Your task to perform on an android device: toggle javascript in the chrome app Image 0: 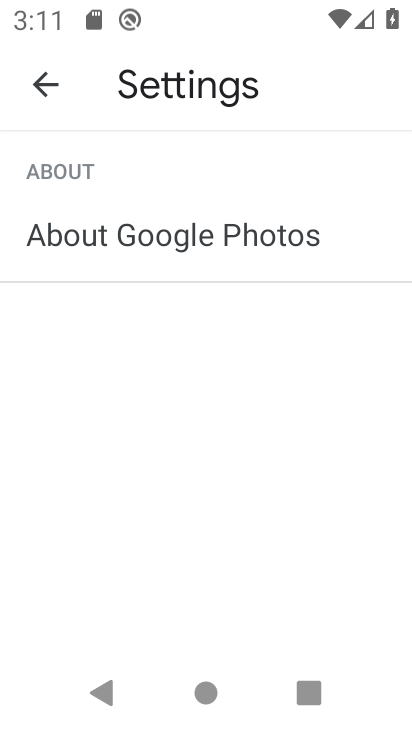
Step 0: press home button
Your task to perform on an android device: toggle javascript in the chrome app Image 1: 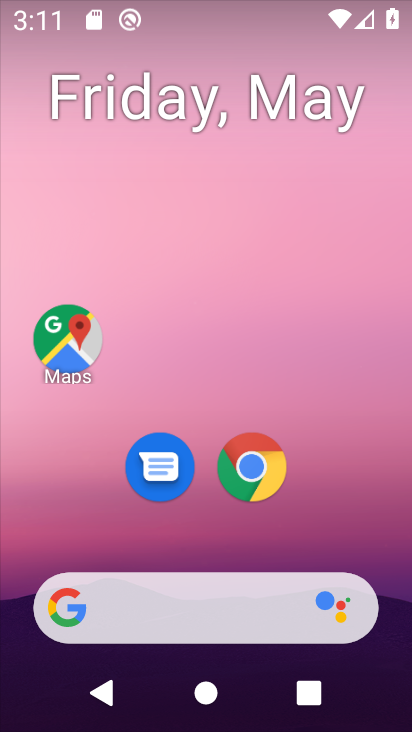
Step 1: click (264, 466)
Your task to perform on an android device: toggle javascript in the chrome app Image 2: 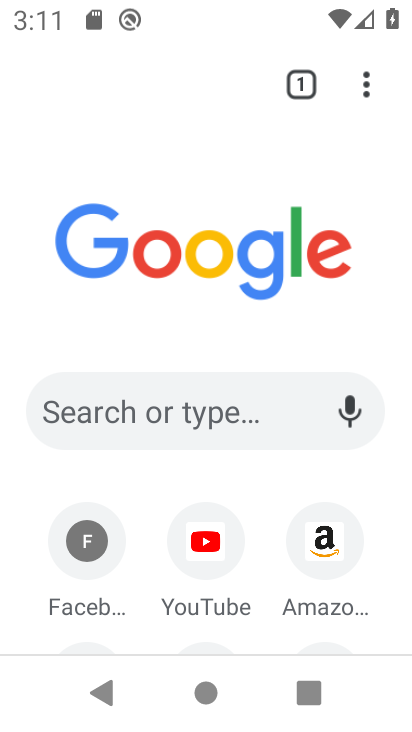
Step 2: click (364, 85)
Your task to perform on an android device: toggle javascript in the chrome app Image 3: 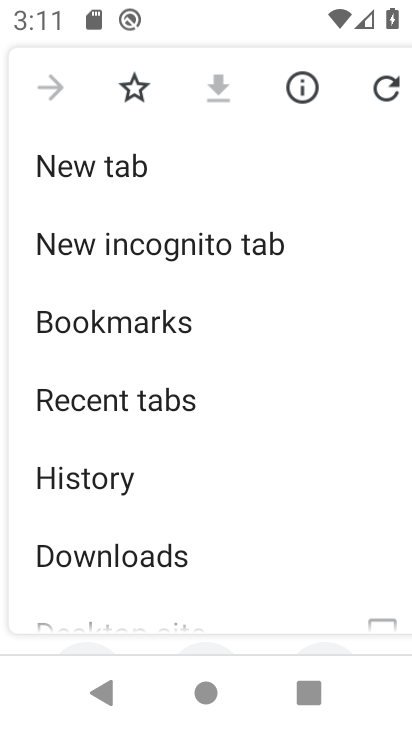
Step 3: drag from (218, 507) to (175, 133)
Your task to perform on an android device: toggle javascript in the chrome app Image 4: 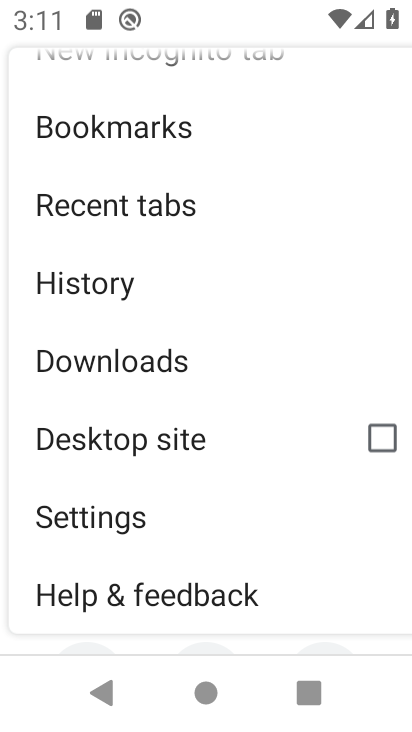
Step 4: click (141, 505)
Your task to perform on an android device: toggle javascript in the chrome app Image 5: 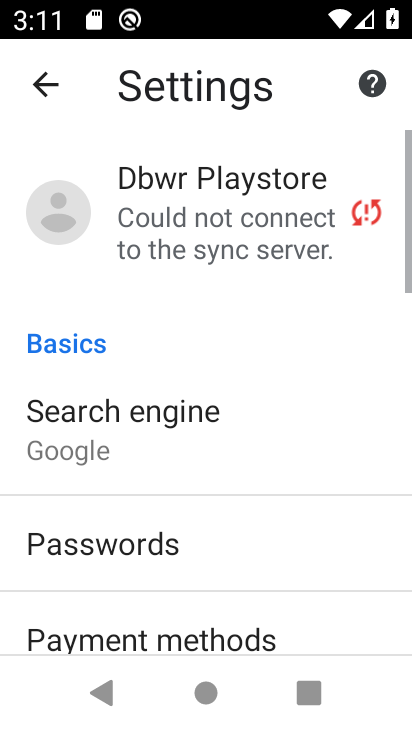
Step 5: drag from (233, 515) to (189, 189)
Your task to perform on an android device: toggle javascript in the chrome app Image 6: 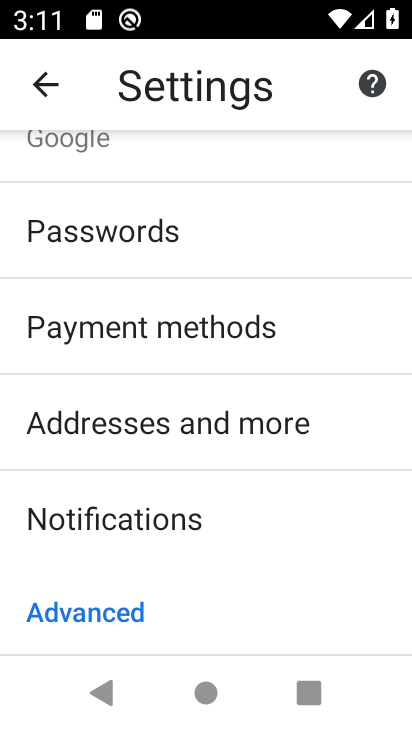
Step 6: drag from (214, 570) to (197, 271)
Your task to perform on an android device: toggle javascript in the chrome app Image 7: 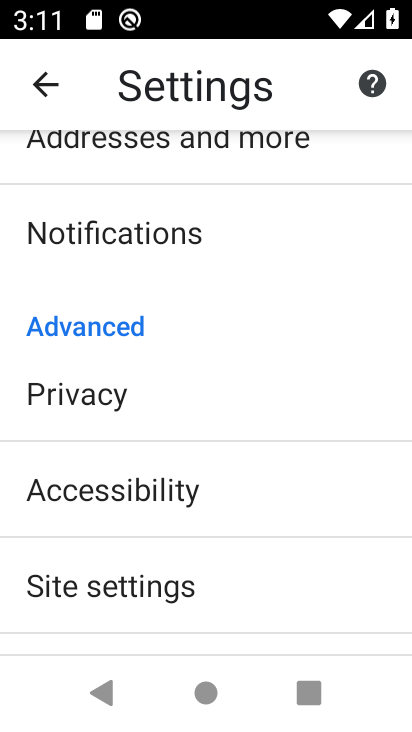
Step 7: drag from (201, 543) to (176, 196)
Your task to perform on an android device: toggle javascript in the chrome app Image 8: 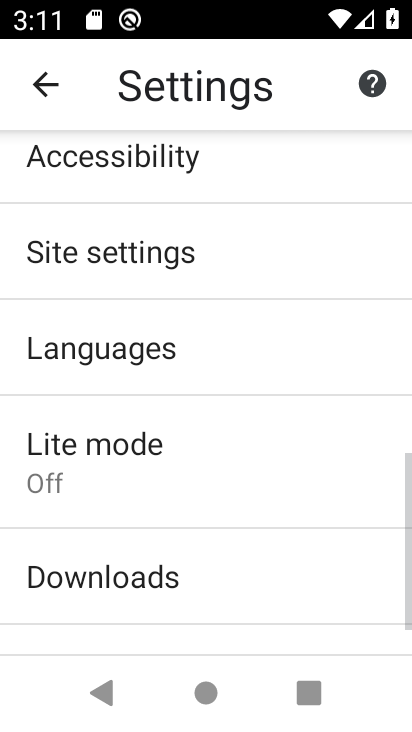
Step 8: drag from (232, 503) to (167, 146)
Your task to perform on an android device: toggle javascript in the chrome app Image 9: 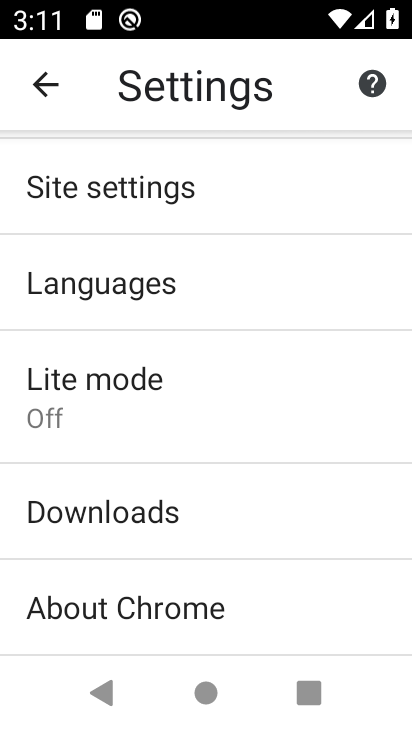
Step 9: click (185, 199)
Your task to perform on an android device: toggle javascript in the chrome app Image 10: 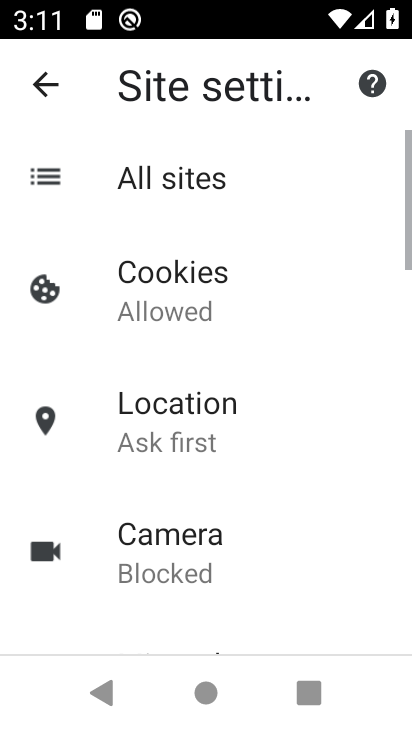
Step 10: drag from (247, 555) to (188, 140)
Your task to perform on an android device: toggle javascript in the chrome app Image 11: 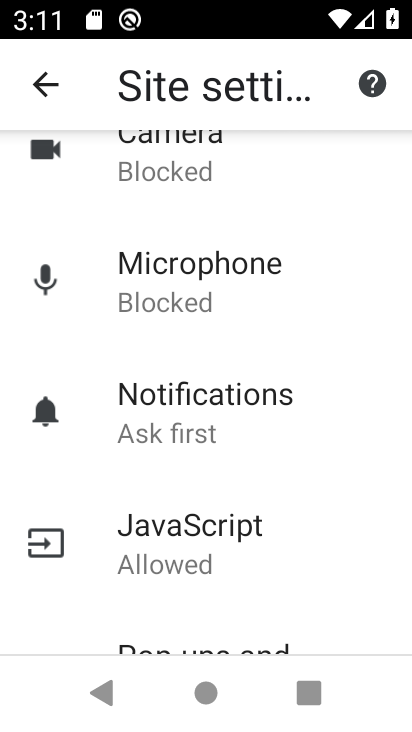
Step 11: click (214, 511)
Your task to perform on an android device: toggle javascript in the chrome app Image 12: 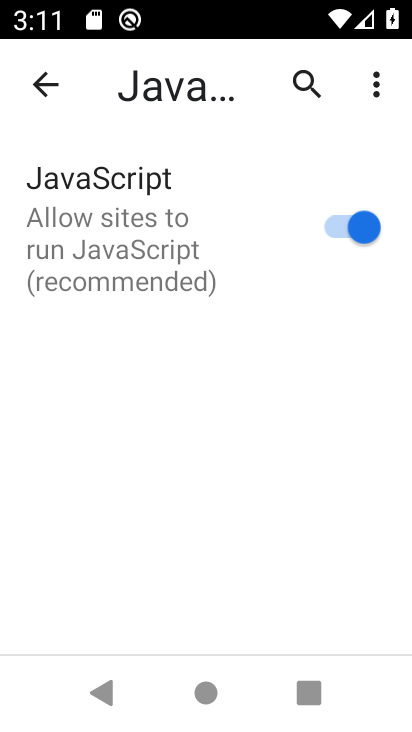
Step 12: click (350, 240)
Your task to perform on an android device: toggle javascript in the chrome app Image 13: 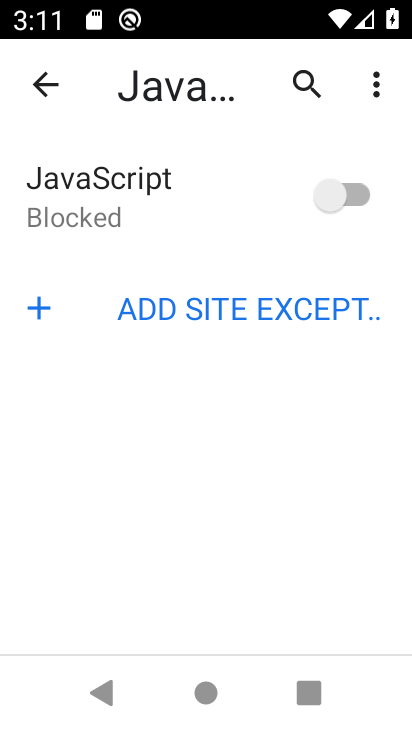
Step 13: task complete